Your task to perform on an android device: Open calendar and show me the first week of next month Image 0: 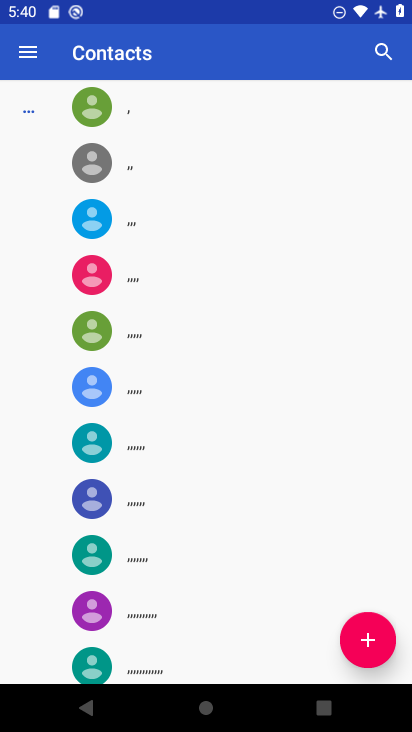
Step 0: press back button
Your task to perform on an android device: Open calendar and show me the first week of next month Image 1: 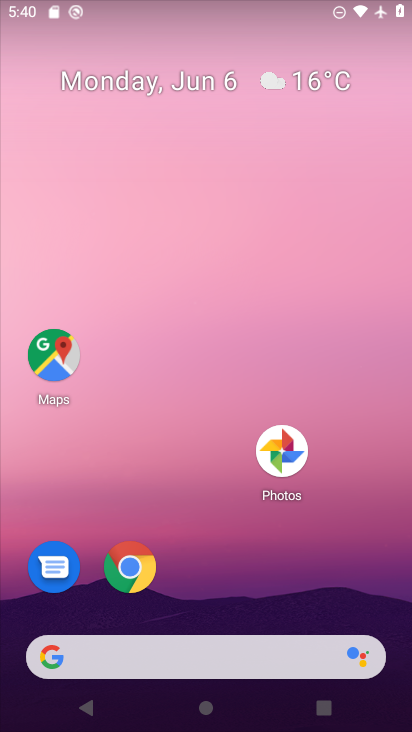
Step 1: drag from (237, 659) to (92, 77)
Your task to perform on an android device: Open calendar and show me the first week of next month Image 2: 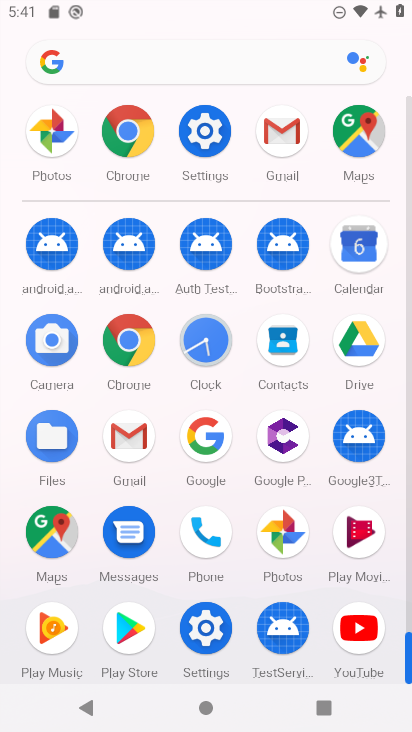
Step 2: click (350, 249)
Your task to perform on an android device: Open calendar and show me the first week of next month Image 3: 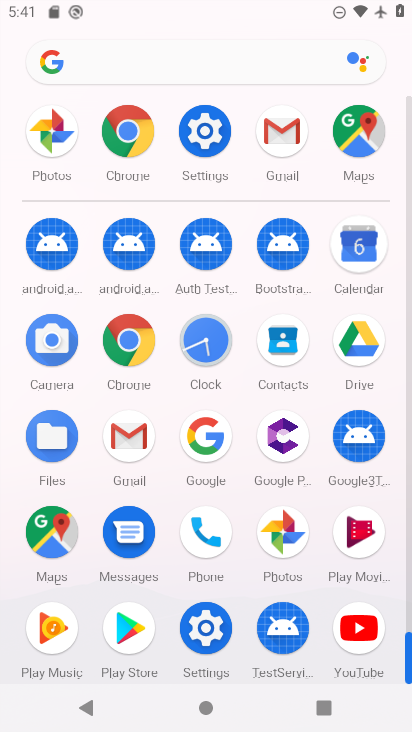
Step 3: click (350, 249)
Your task to perform on an android device: Open calendar and show me the first week of next month Image 4: 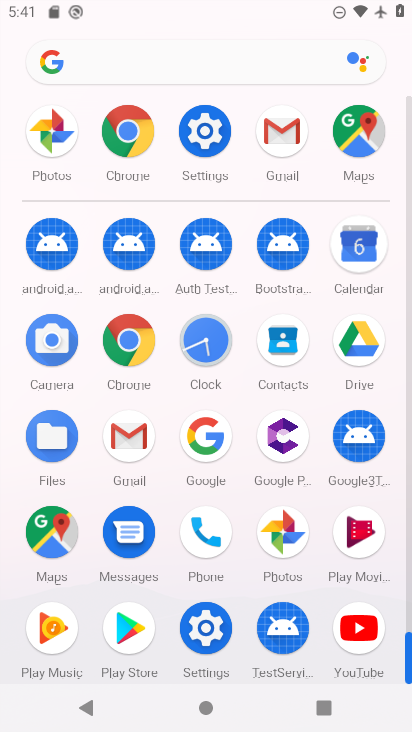
Step 4: click (351, 248)
Your task to perform on an android device: Open calendar and show me the first week of next month Image 5: 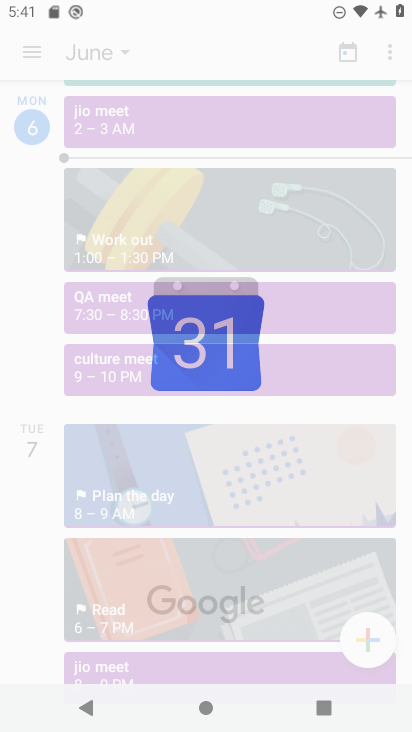
Step 5: click (351, 247)
Your task to perform on an android device: Open calendar and show me the first week of next month Image 6: 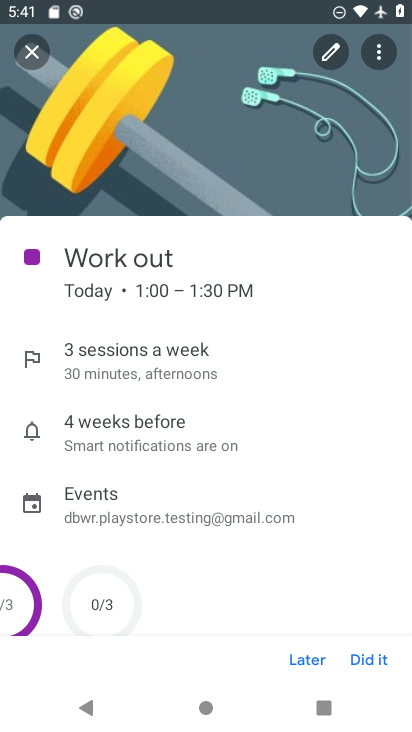
Step 6: click (22, 43)
Your task to perform on an android device: Open calendar and show me the first week of next month Image 7: 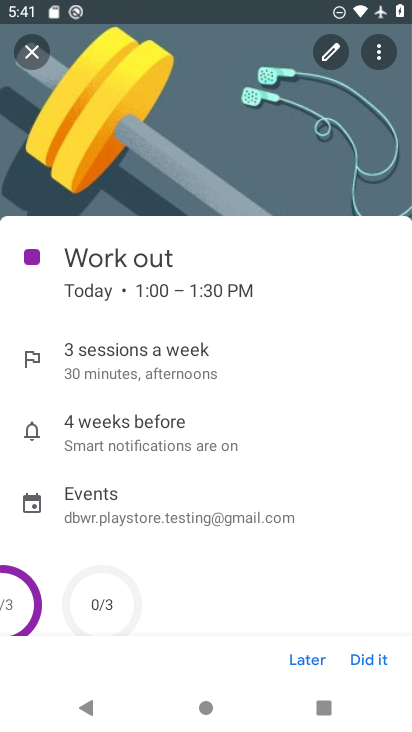
Step 7: drag from (25, 61) to (298, 660)
Your task to perform on an android device: Open calendar and show me the first week of next month Image 8: 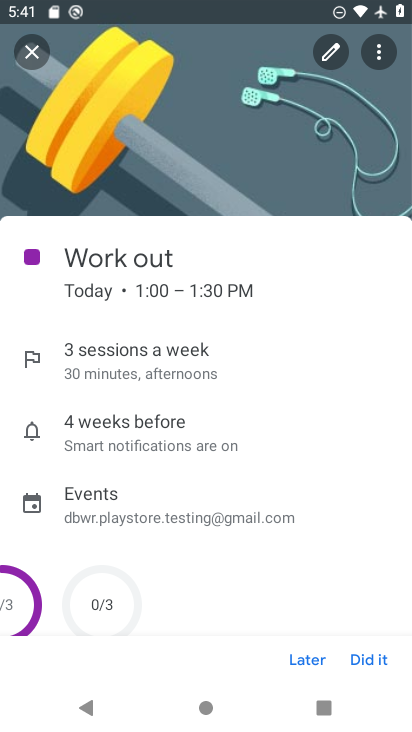
Step 8: press back button
Your task to perform on an android device: Open calendar and show me the first week of next month Image 9: 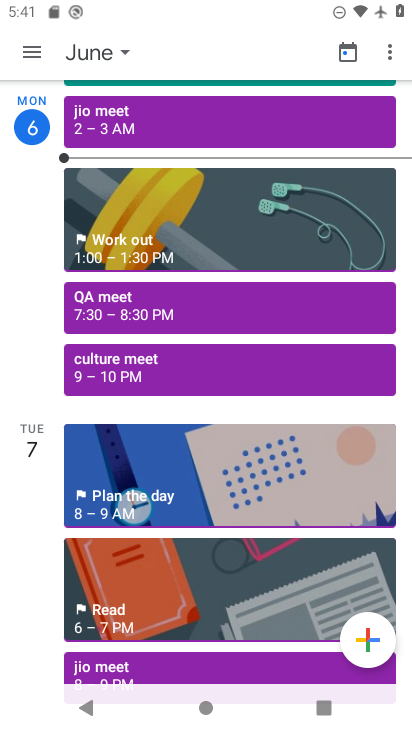
Step 9: click (126, 49)
Your task to perform on an android device: Open calendar and show me the first week of next month Image 10: 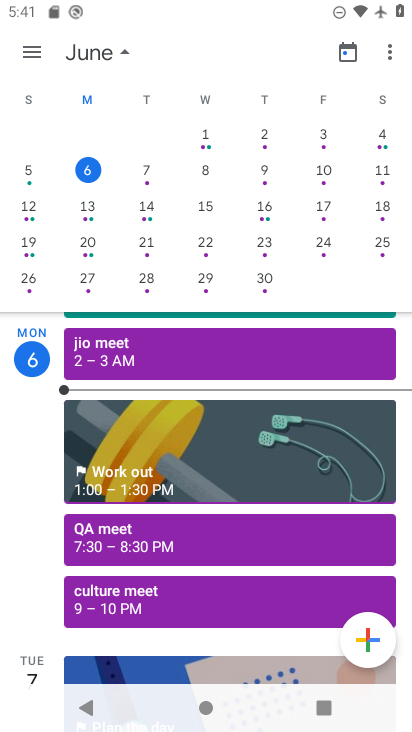
Step 10: task complete